Your task to perform on an android device: Open Reddit.com Image 0: 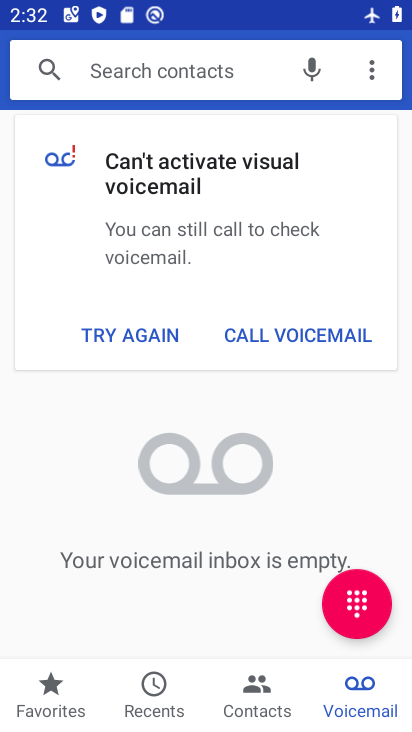
Step 0: press home button
Your task to perform on an android device: Open Reddit.com Image 1: 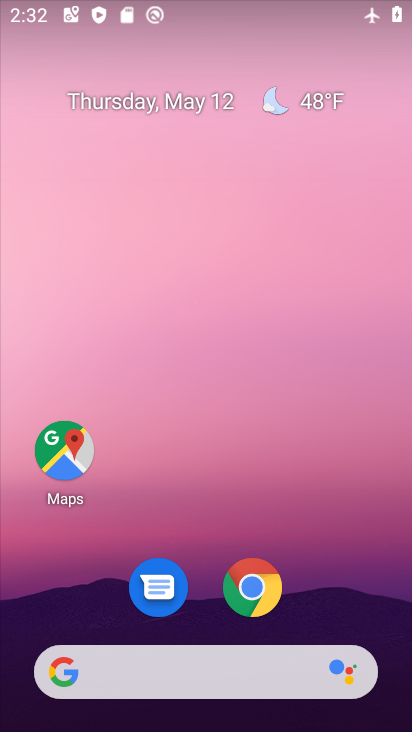
Step 1: click (262, 591)
Your task to perform on an android device: Open Reddit.com Image 2: 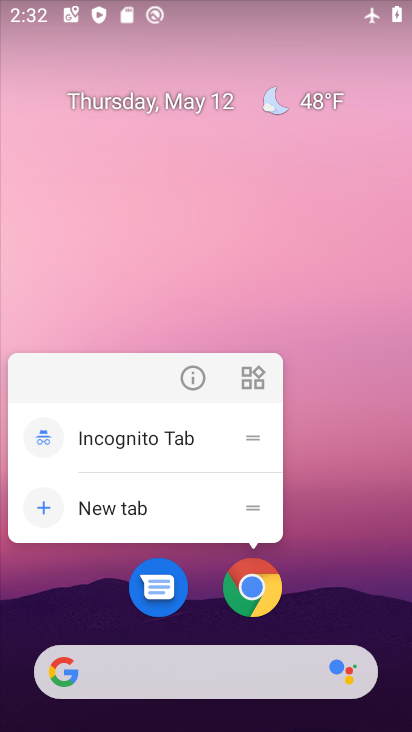
Step 2: click (262, 591)
Your task to perform on an android device: Open Reddit.com Image 3: 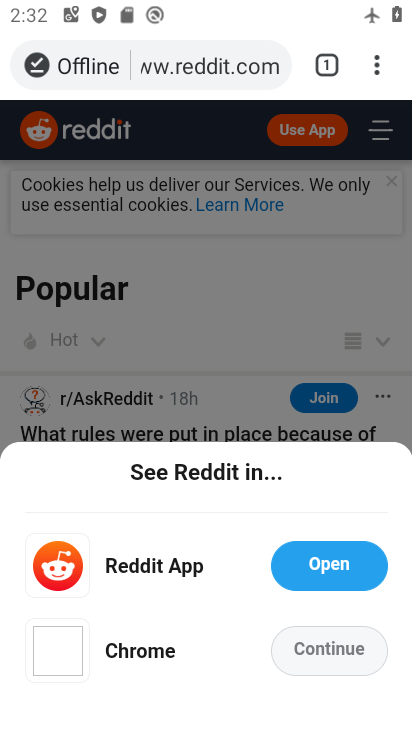
Step 3: click (330, 657)
Your task to perform on an android device: Open Reddit.com Image 4: 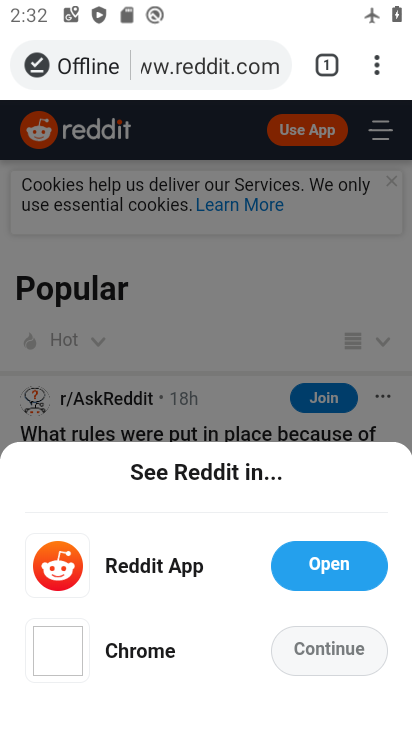
Step 4: click (332, 646)
Your task to perform on an android device: Open Reddit.com Image 5: 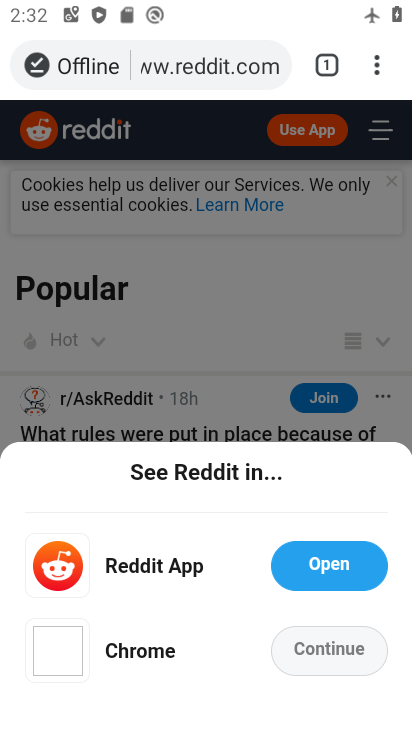
Step 5: click (333, 645)
Your task to perform on an android device: Open Reddit.com Image 6: 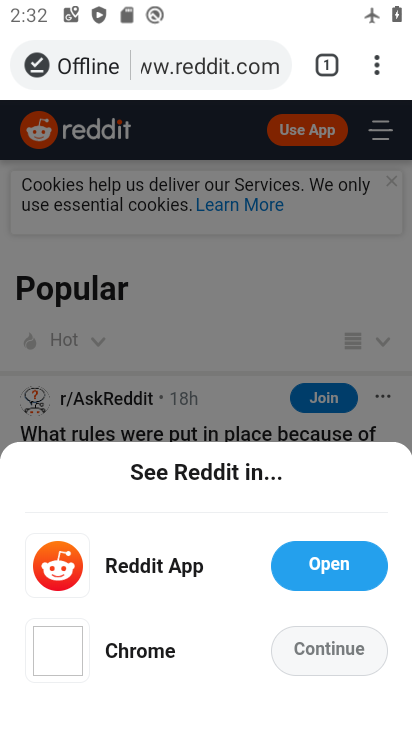
Step 6: click (333, 645)
Your task to perform on an android device: Open Reddit.com Image 7: 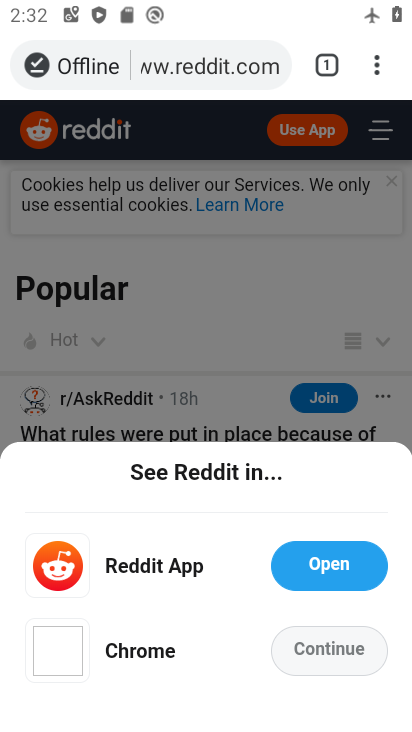
Step 7: click (75, 669)
Your task to perform on an android device: Open Reddit.com Image 8: 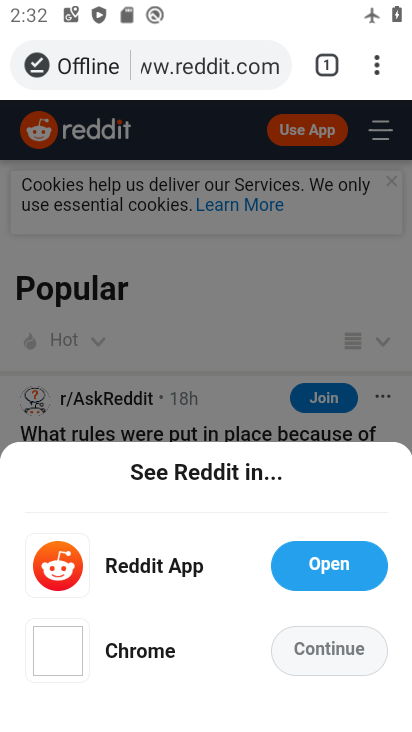
Step 8: click (355, 656)
Your task to perform on an android device: Open Reddit.com Image 9: 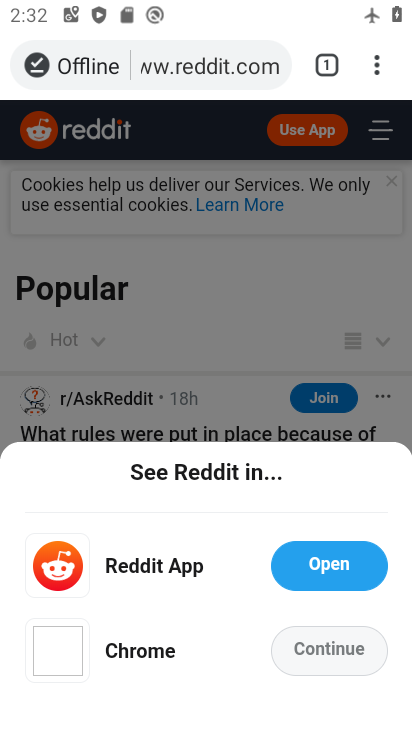
Step 9: task complete